Your task to perform on an android device: Open Google Maps and go to "Timeline" Image 0: 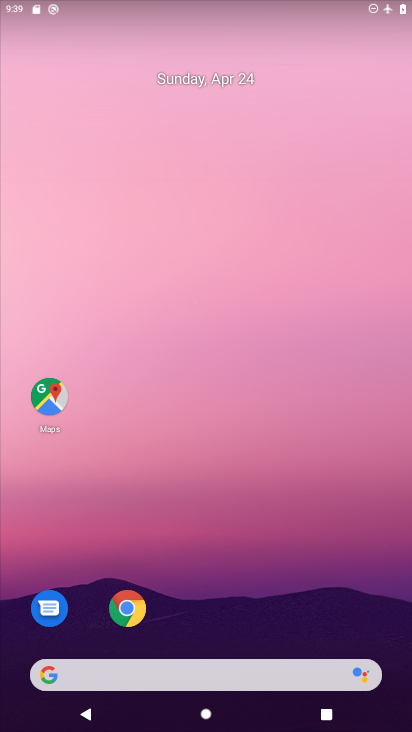
Step 0: click (40, 407)
Your task to perform on an android device: Open Google Maps and go to "Timeline" Image 1: 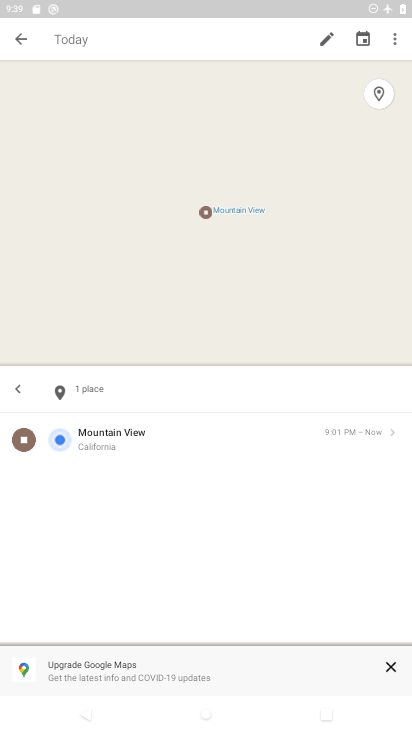
Step 1: click (19, 47)
Your task to perform on an android device: Open Google Maps and go to "Timeline" Image 2: 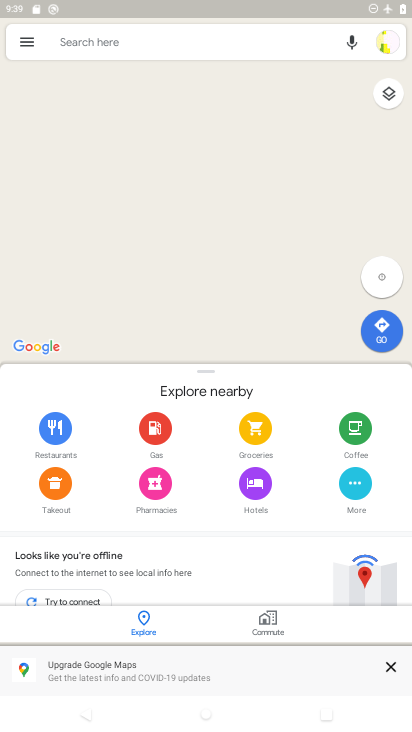
Step 2: click (19, 47)
Your task to perform on an android device: Open Google Maps and go to "Timeline" Image 3: 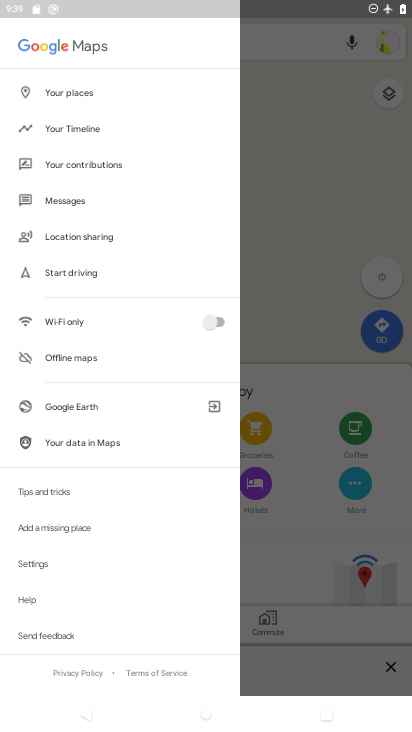
Step 3: click (64, 133)
Your task to perform on an android device: Open Google Maps and go to "Timeline" Image 4: 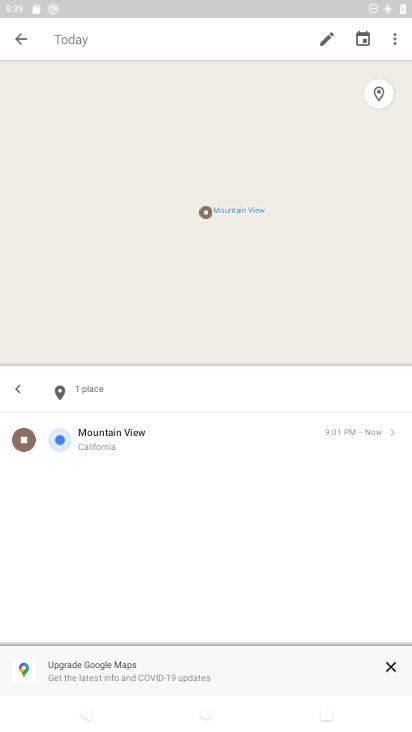
Step 4: task complete